Your task to perform on an android device: toggle data saver in the chrome app Image 0: 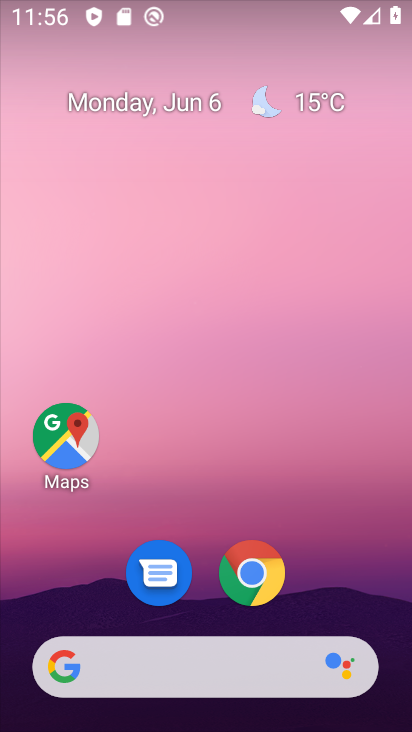
Step 0: click (261, 587)
Your task to perform on an android device: toggle data saver in the chrome app Image 1: 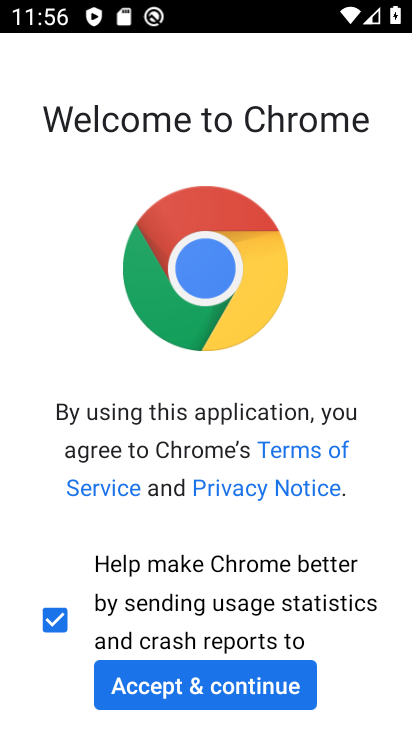
Step 1: click (240, 698)
Your task to perform on an android device: toggle data saver in the chrome app Image 2: 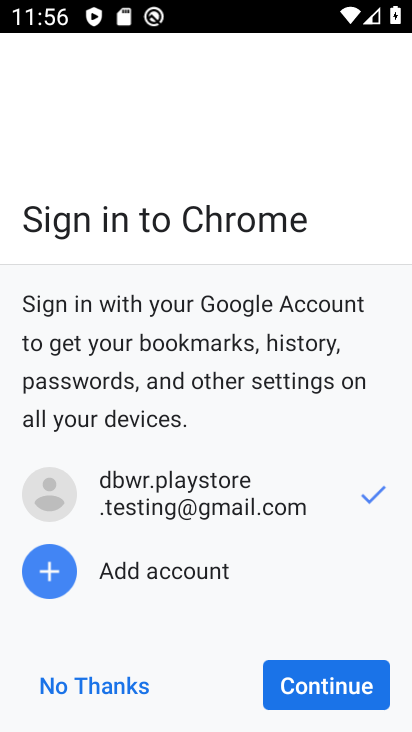
Step 2: click (283, 679)
Your task to perform on an android device: toggle data saver in the chrome app Image 3: 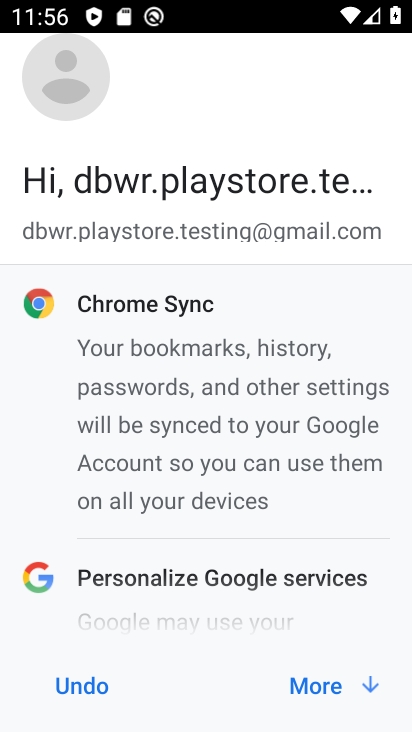
Step 3: click (370, 689)
Your task to perform on an android device: toggle data saver in the chrome app Image 4: 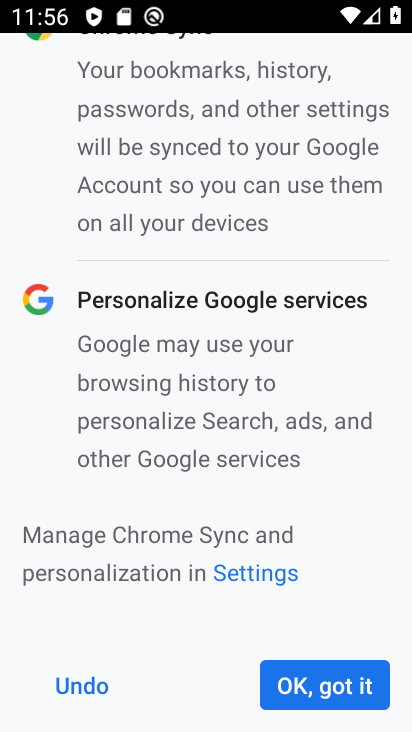
Step 4: click (341, 681)
Your task to perform on an android device: toggle data saver in the chrome app Image 5: 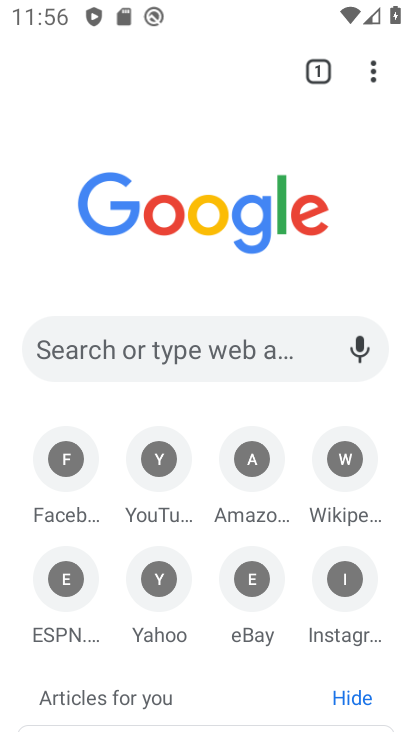
Step 5: click (375, 73)
Your task to perform on an android device: toggle data saver in the chrome app Image 6: 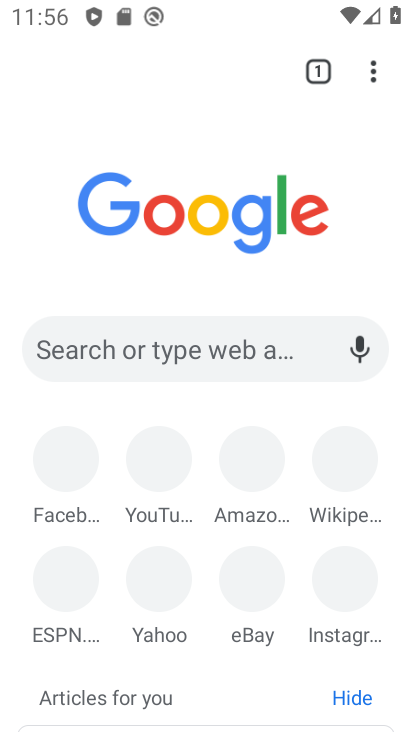
Step 6: drag from (373, 69) to (237, 595)
Your task to perform on an android device: toggle data saver in the chrome app Image 7: 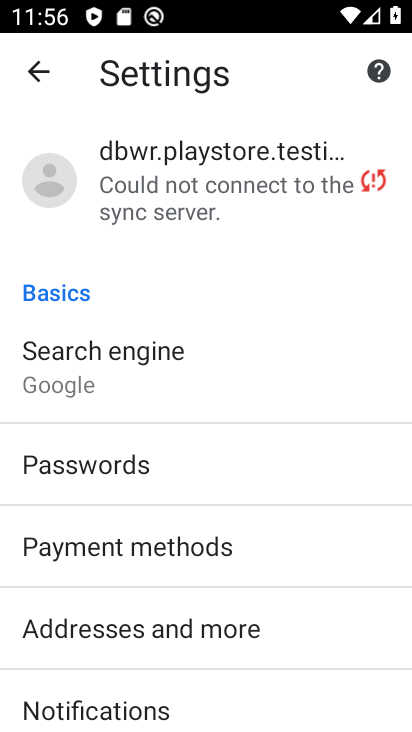
Step 7: drag from (334, 639) to (323, 110)
Your task to perform on an android device: toggle data saver in the chrome app Image 8: 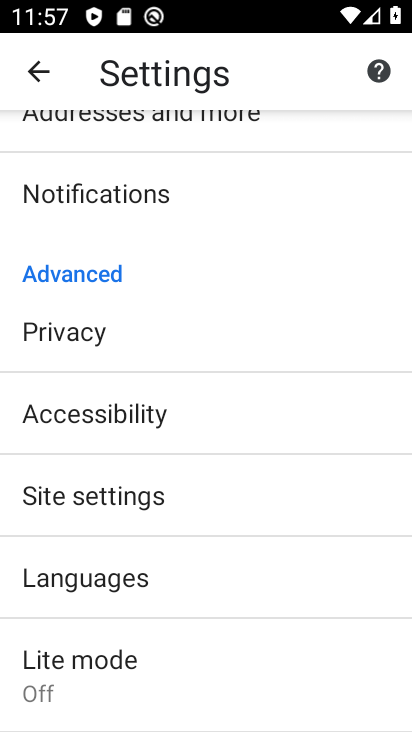
Step 8: click (180, 696)
Your task to perform on an android device: toggle data saver in the chrome app Image 9: 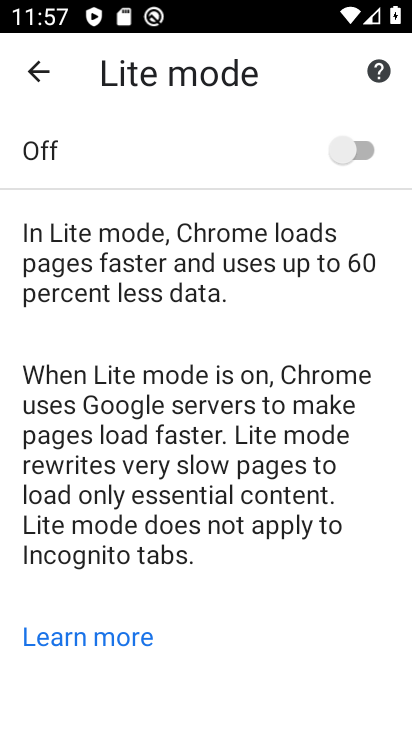
Step 9: click (360, 155)
Your task to perform on an android device: toggle data saver in the chrome app Image 10: 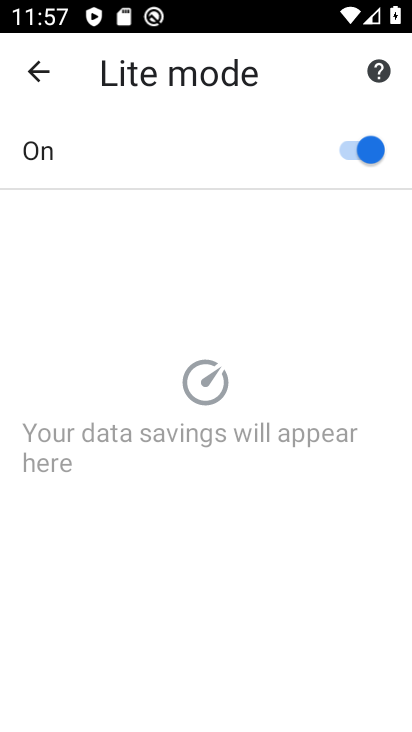
Step 10: task complete